Your task to perform on an android device: add a label to a message in the gmail app Image 0: 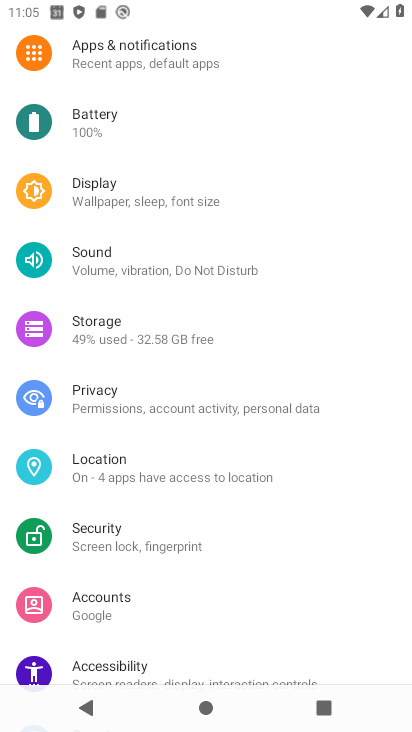
Step 0: press home button
Your task to perform on an android device: add a label to a message in the gmail app Image 1: 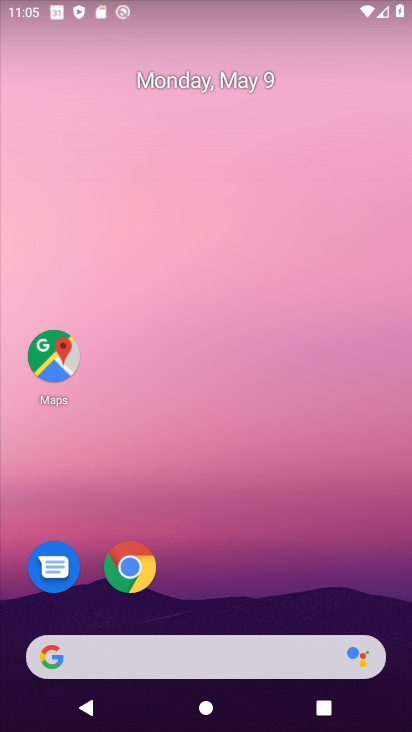
Step 1: drag from (347, 599) to (297, 113)
Your task to perform on an android device: add a label to a message in the gmail app Image 2: 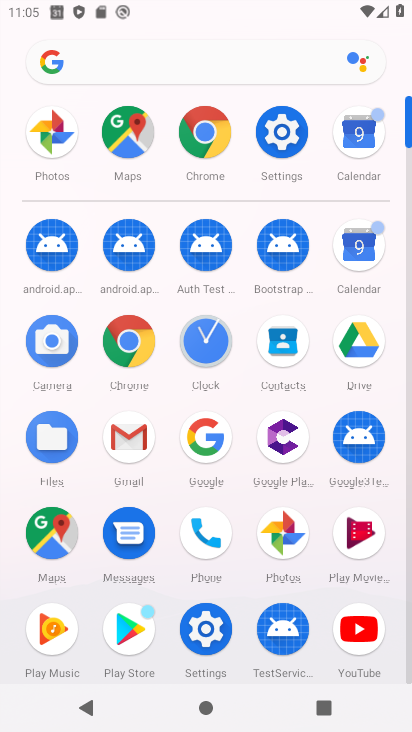
Step 2: click (123, 426)
Your task to perform on an android device: add a label to a message in the gmail app Image 3: 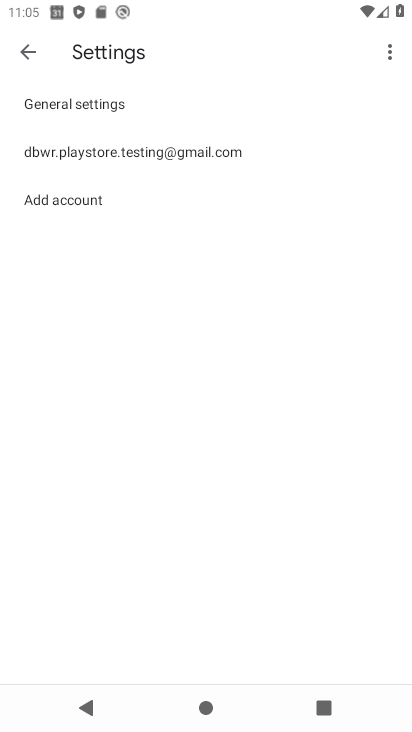
Step 3: press back button
Your task to perform on an android device: add a label to a message in the gmail app Image 4: 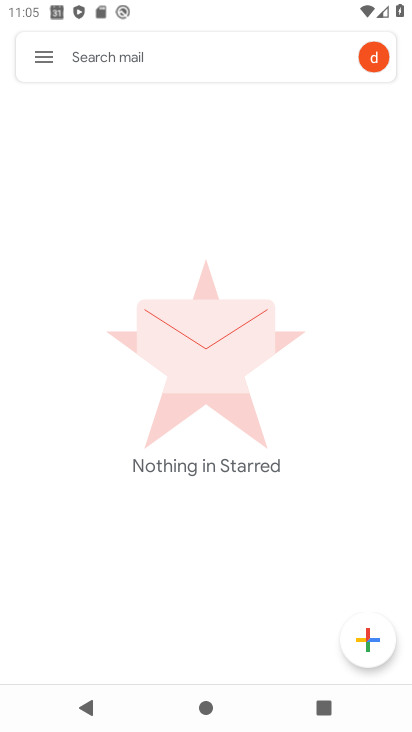
Step 4: click (48, 60)
Your task to perform on an android device: add a label to a message in the gmail app Image 5: 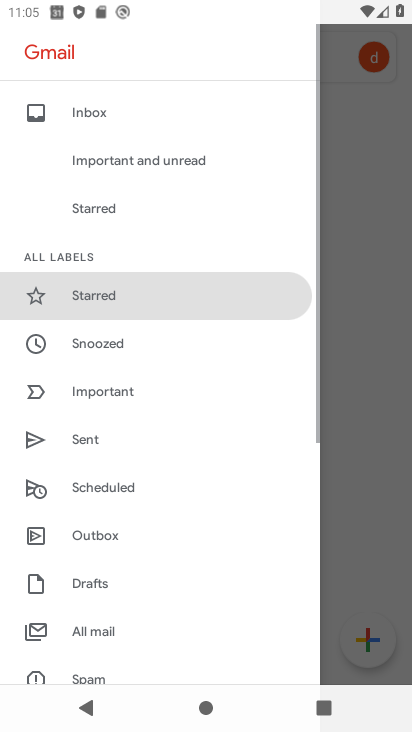
Step 5: click (101, 105)
Your task to perform on an android device: add a label to a message in the gmail app Image 6: 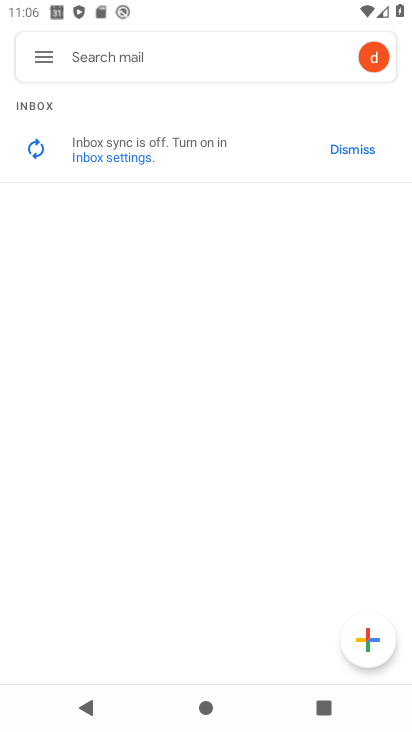
Step 6: task complete